Your task to perform on an android device: change the clock display to analog Image 0: 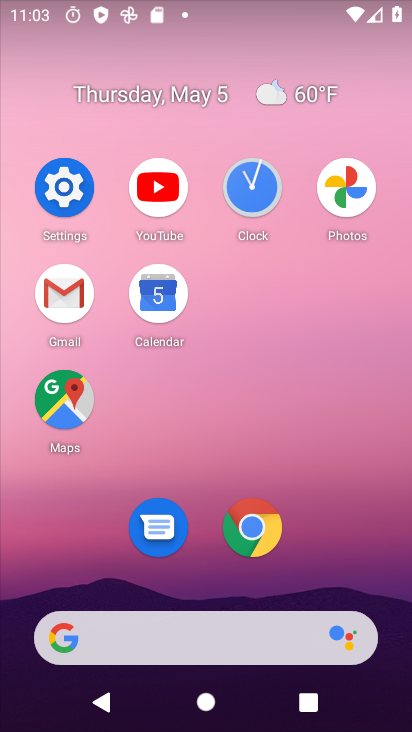
Step 0: drag from (289, 0) to (285, 490)
Your task to perform on an android device: change the clock display to analog Image 1: 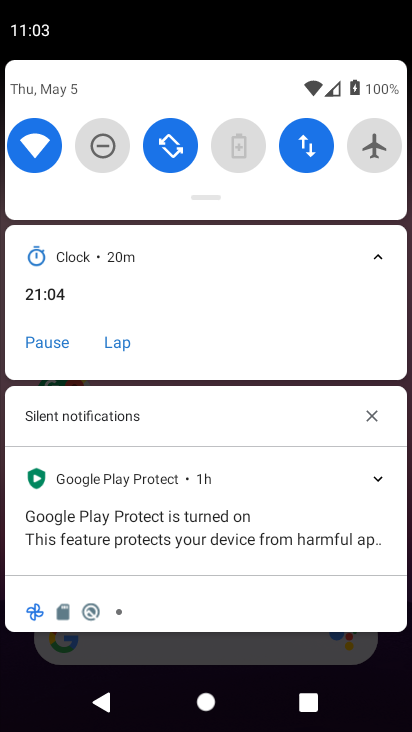
Step 1: task complete